Your task to perform on an android device: find snoozed emails in the gmail app Image 0: 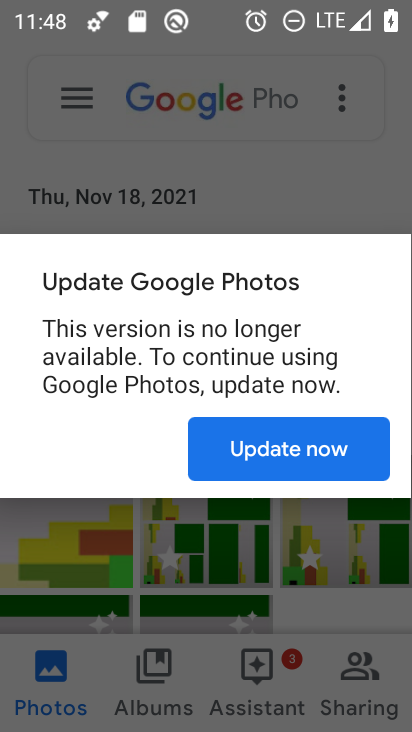
Step 0: press home button
Your task to perform on an android device: find snoozed emails in the gmail app Image 1: 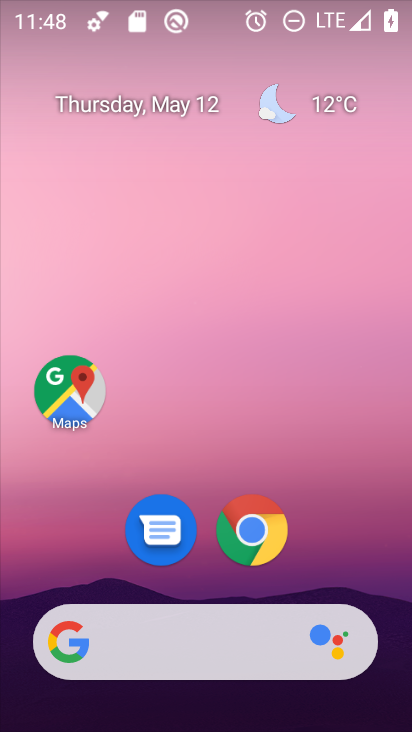
Step 1: drag from (148, 646) to (276, 142)
Your task to perform on an android device: find snoozed emails in the gmail app Image 2: 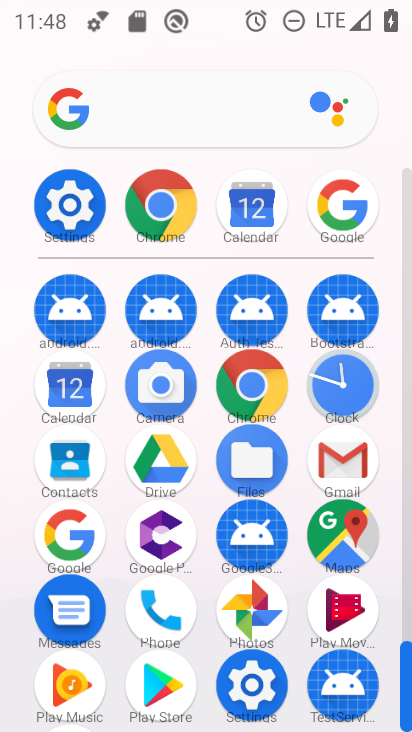
Step 2: click (341, 470)
Your task to perform on an android device: find snoozed emails in the gmail app Image 3: 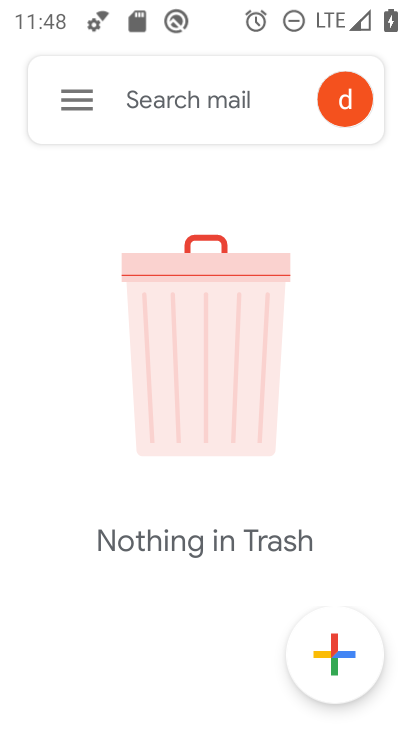
Step 3: click (80, 105)
Your task to perform on an android device: find snoozed emails in the gmail app Image 4: 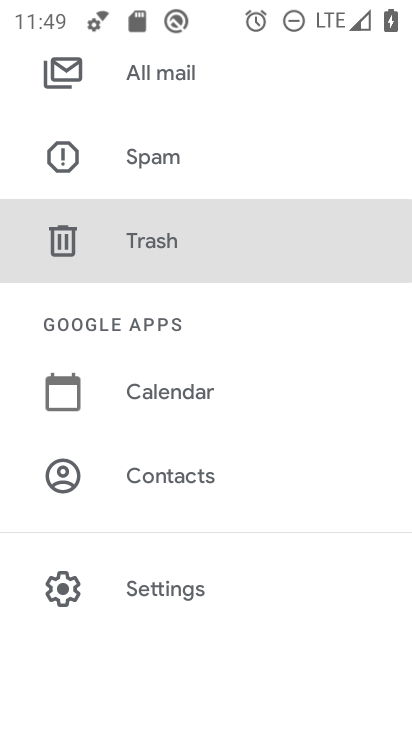
Step 4: drag from (278, 100) to (138, 553)
Your task to perform on an android device: find snoozed emails in the gmail app Image 5: 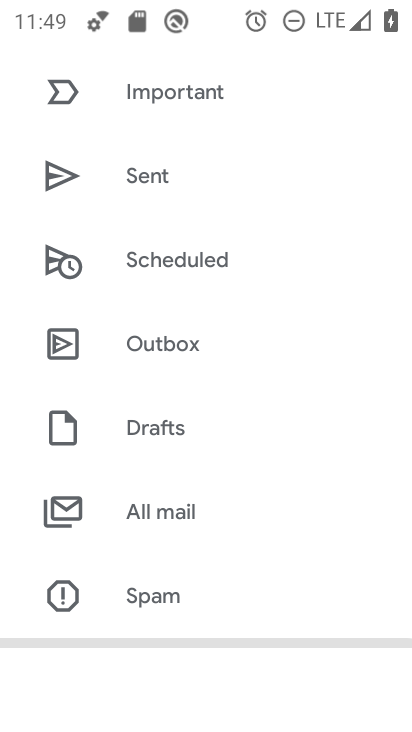
Step 5: drag from (284, 129) to (211, 468)
Your task to perform on an android device: find snoozed emails in the gmail app Image 6: 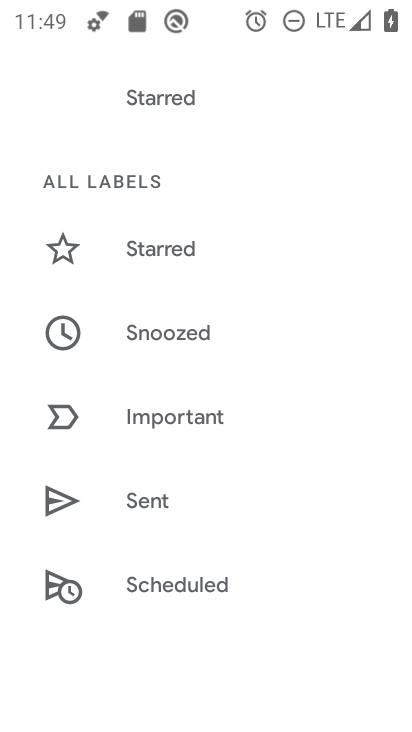
Step 6: click (179, 337)
Your task to perform on an android device: find snoozed emails in the gmail app Image 7: 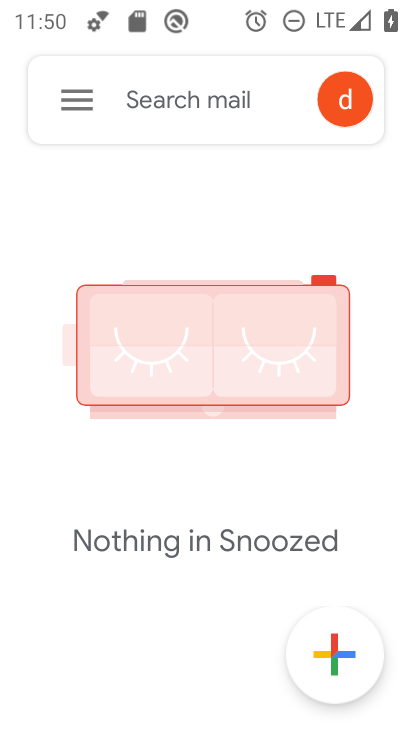
Step 7: task complete